Your task to perform on an android device: move a message to another label in the gmail app Image 0: 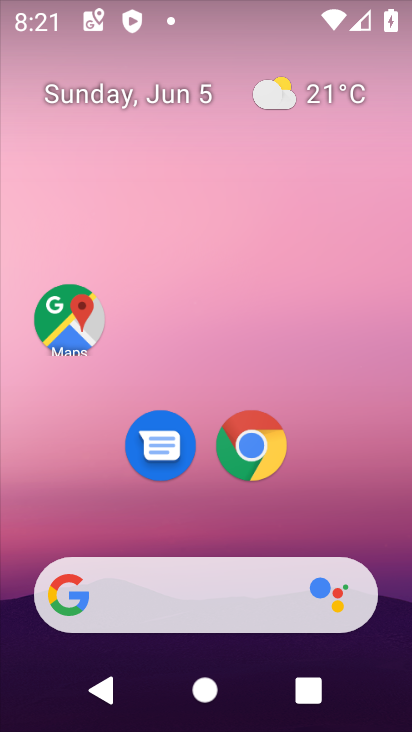
Step 0: press home button
Your task to perform on an android device: move a message to another label in the gmail app Image 1: 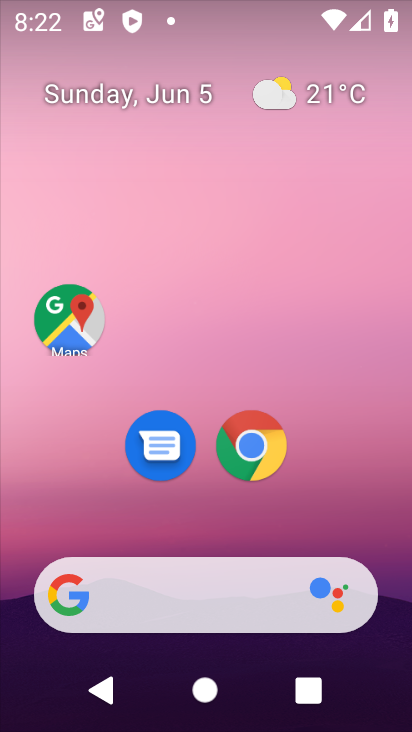
Step 1: drag from (215, 524) to (166, 22)
Your task to perform on an android device: move a message to another label in the gmail app Image 2: 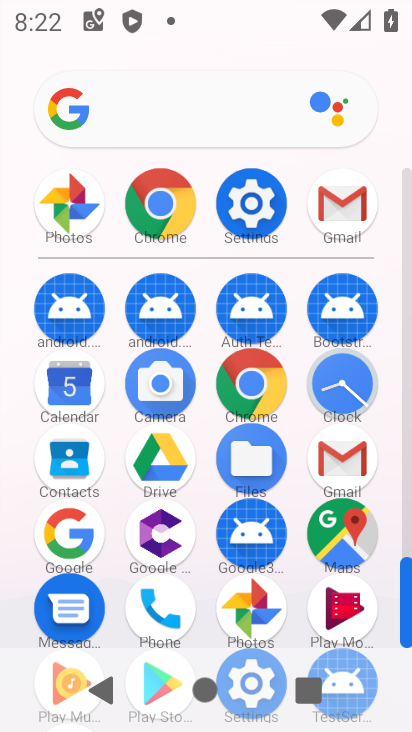
Step 2: click (329, 206)
Your task to perform on an android device: move a message to another label in the gmail app Image 3: 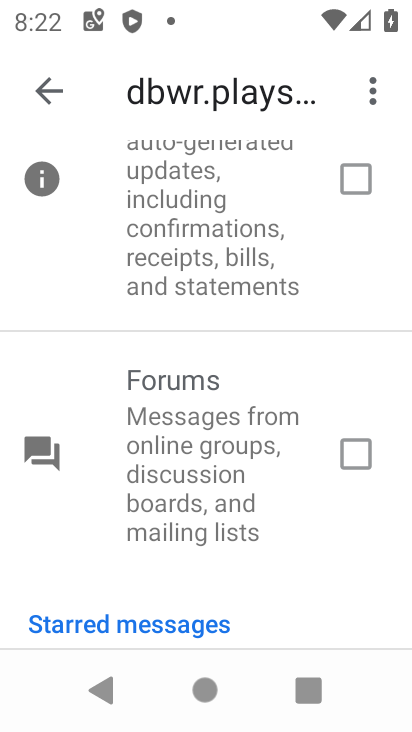
Step 3: click (35, 90)
Your task to perform on an android device: move a message to another label in the gmail app Image 4: 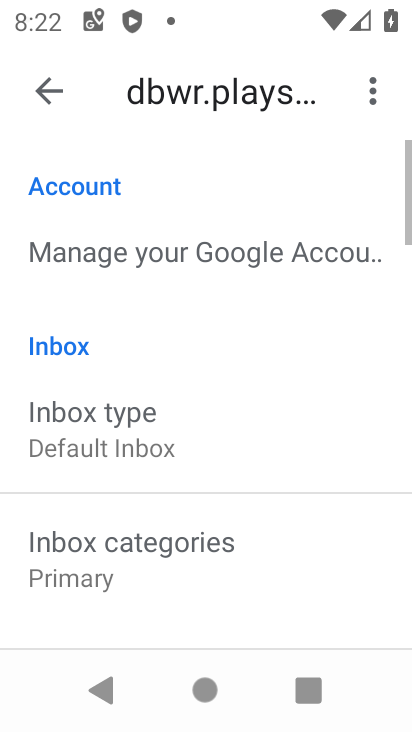
Step 4: click (35, 90)
Your task to perform on an android device: move a message to another label in the gmail app Image 5: 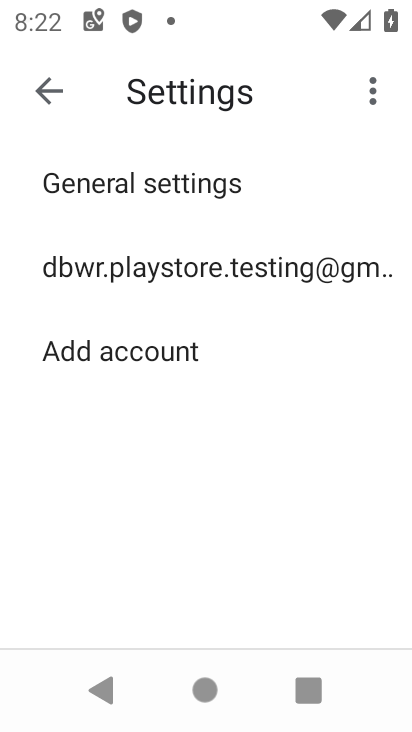
Step 5: click (35, 90)
Your task to perform on an android device: move a message to another label in the gmail app Image 6: 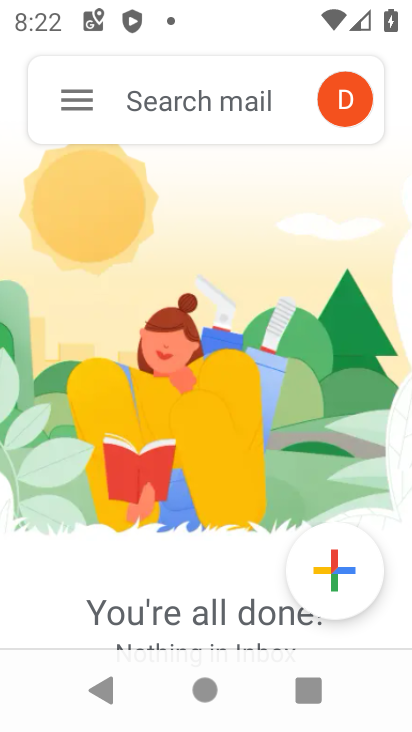
Step 6: click (88, 109)
Your task to perform on an android device: move a message to another label in the gmail app Image 7: 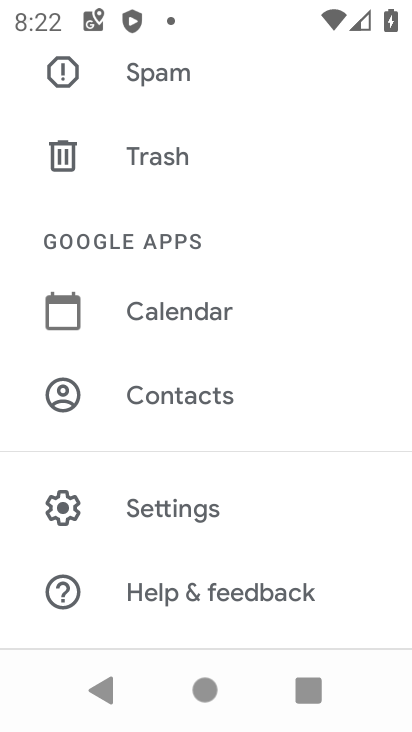
Step 7: drag from (322, 136) to (375, 607)
Your task to perform on an android device: move a message to another label in the gmail app Image 8: 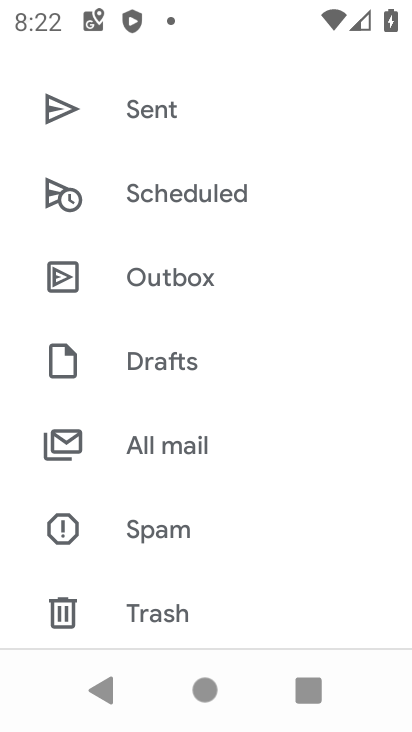
Step 8: click (175, 446)
Your task to perform on an android device: move a message to another label in the gmail app Image 9: 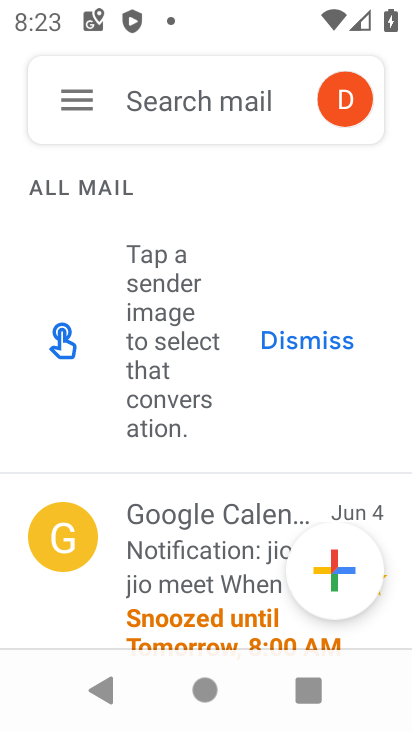
Step 9: click (52, 537)
Your task to perform on an android device: move a message to another label in the gmail app Image 10: 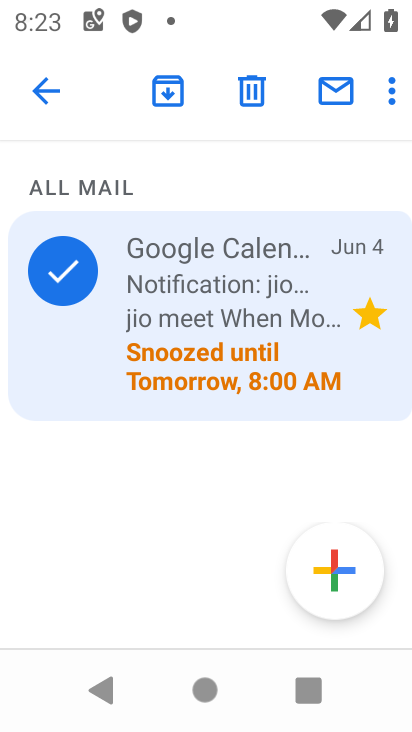
Step 10: click (400, 87)
Your task to perform on an android device: move a message to another label in the gmail app Image 11: 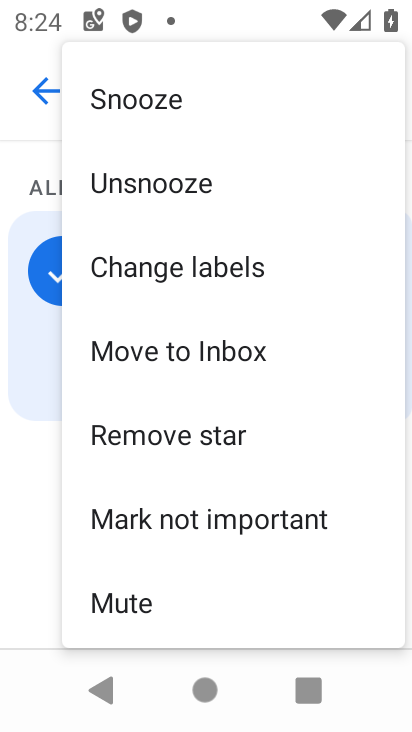
Step 11: click (184, 274)
Your task to perform on an android device: move a message to another label in the gmail app Image 12: 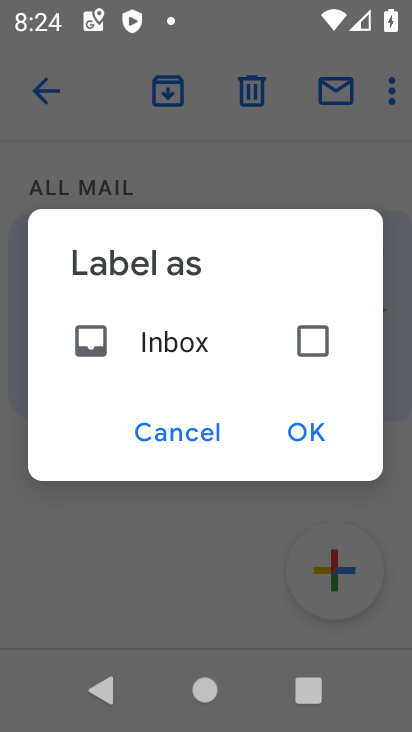
Step 12: click (314, 344)
Your task to perform on an android device: move a message to another label in the gmail app Image 13: 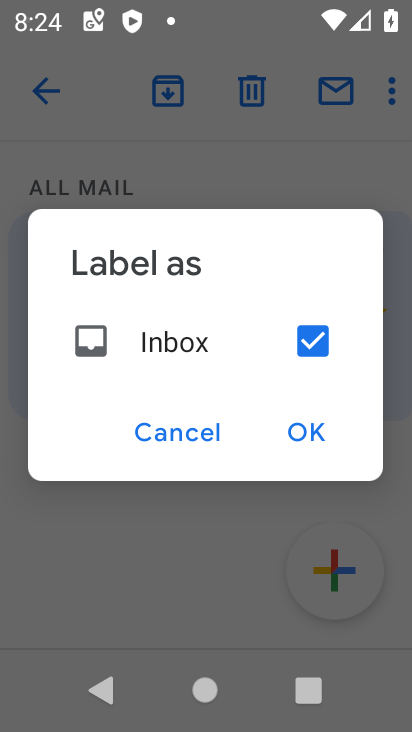
Step 13: click (307, 433)
Your task to perform on an android device: move a message to another label in the gmail app Image 14: 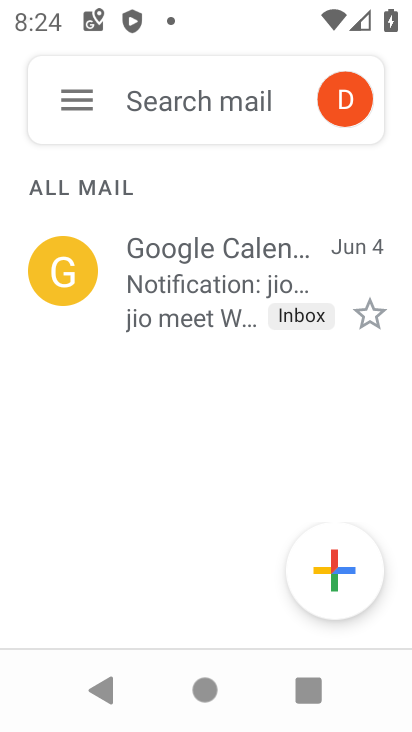
Step 14: task complete